Your task to perform on an android device: Go to Reddit.com Image 0: 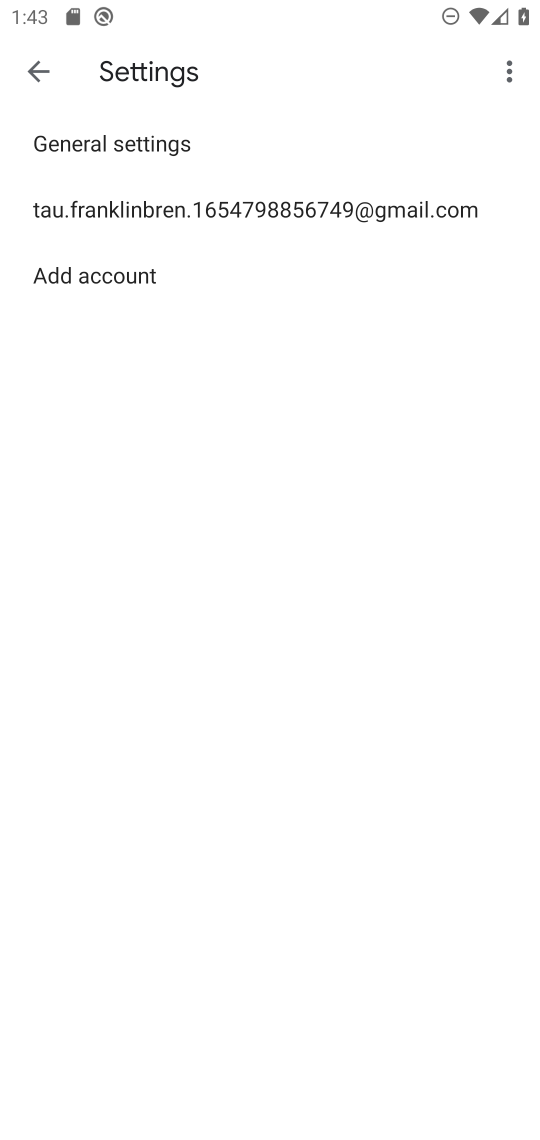
Step 0: press home button
Your task to perform on an android device: Go to Reddit.com Image 1: 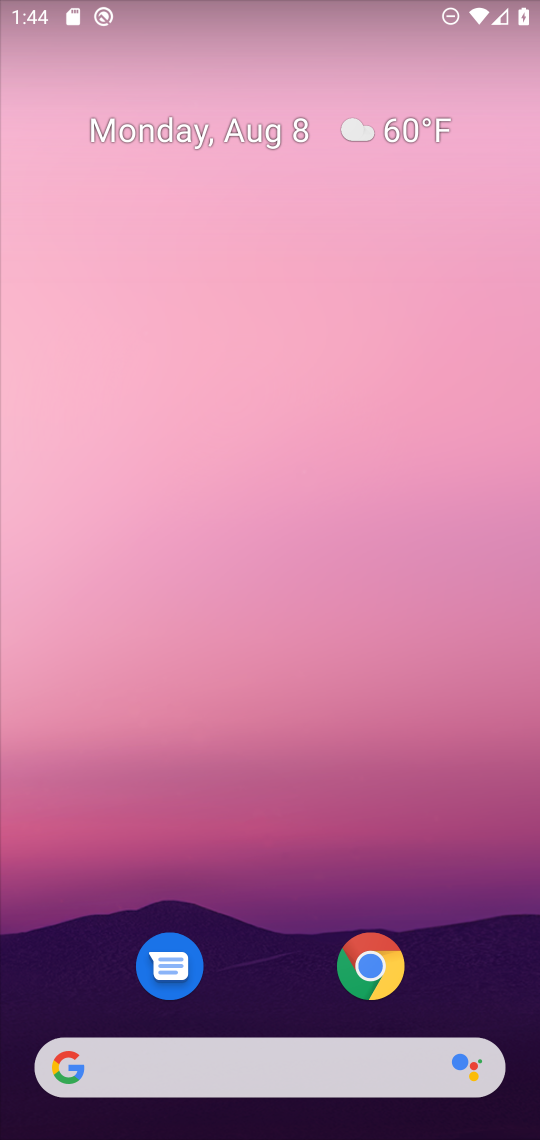
Step 1: click (383, 963)
Your task to perform on an android device: Go to Reddit.com Image 2: 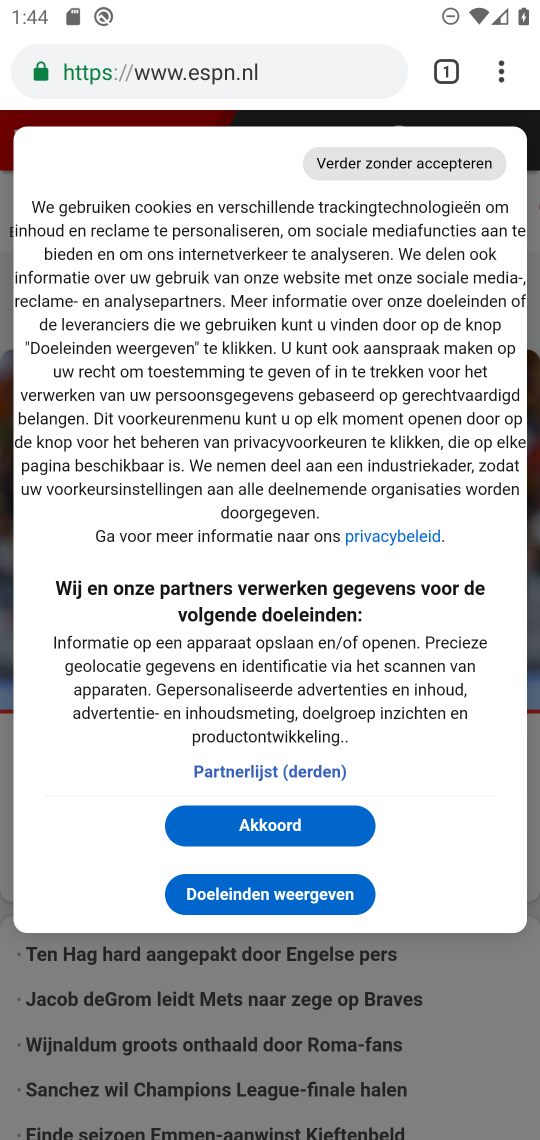
Step 2: click (266, 825)
Your task to perform on an android device: Go to Reddit.com Image 3: 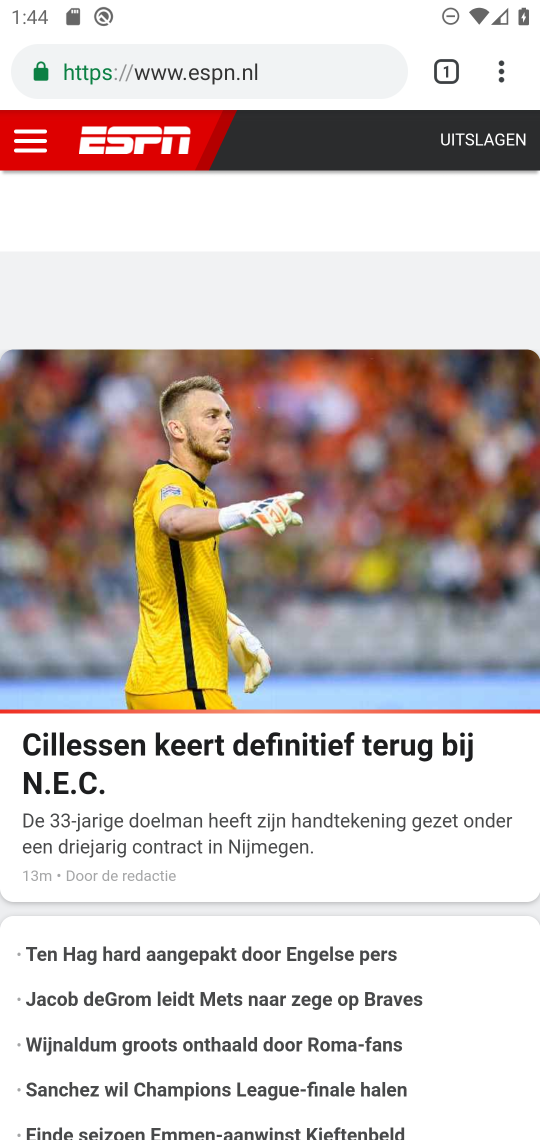
Step 3: click (350, 71)
Your task to perform on an android device: Go to Reddit.com Image 4: 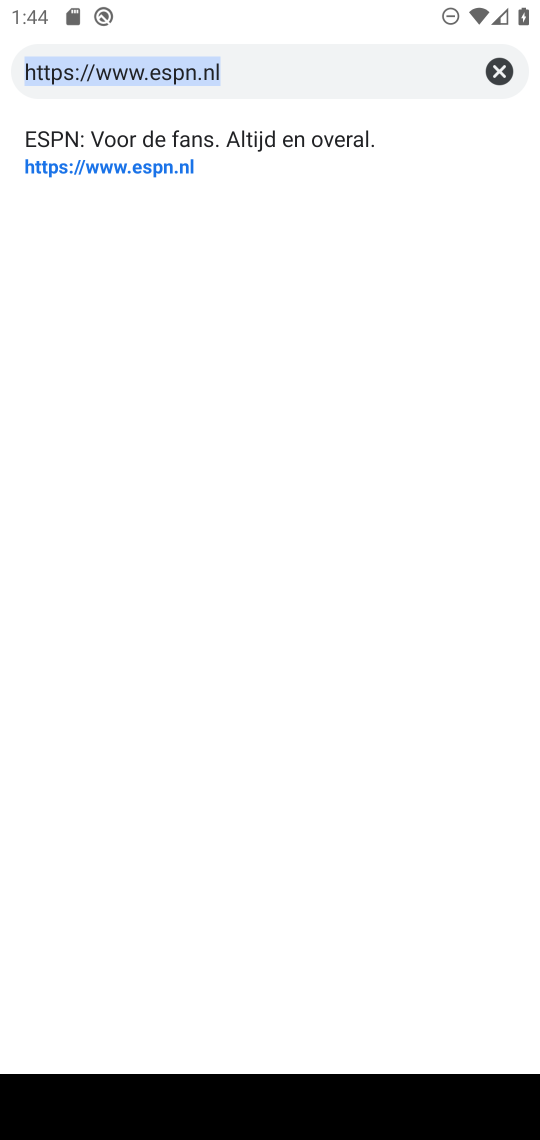
Step 4: type "reddit.com"
Your task to perform on an android device: Go to Reddit.com Image 5: 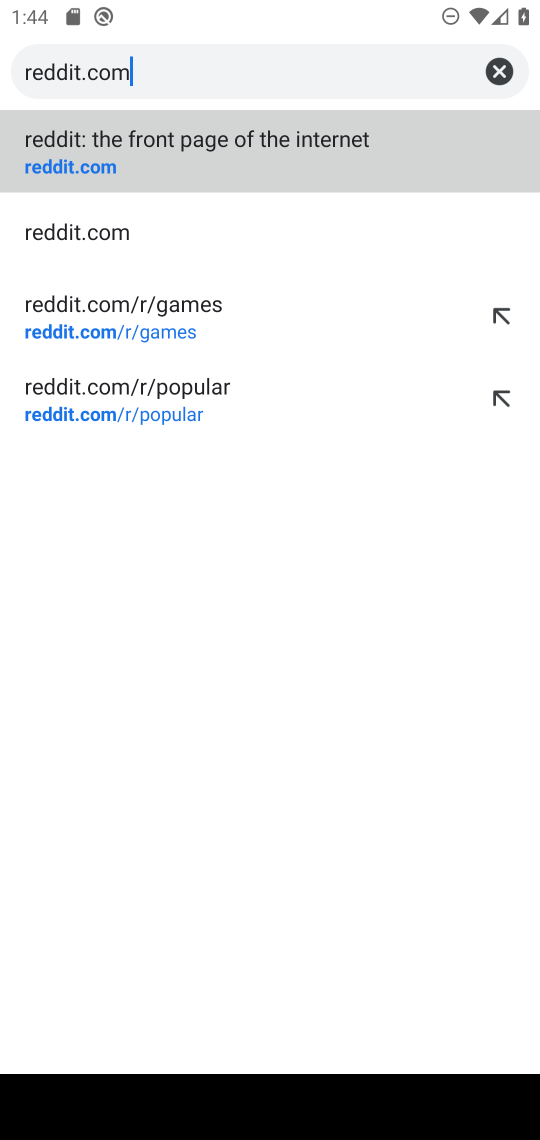
Step 5: click (280, 139)
Your task to perform on an android device: Go to Reddit.com Image 6: 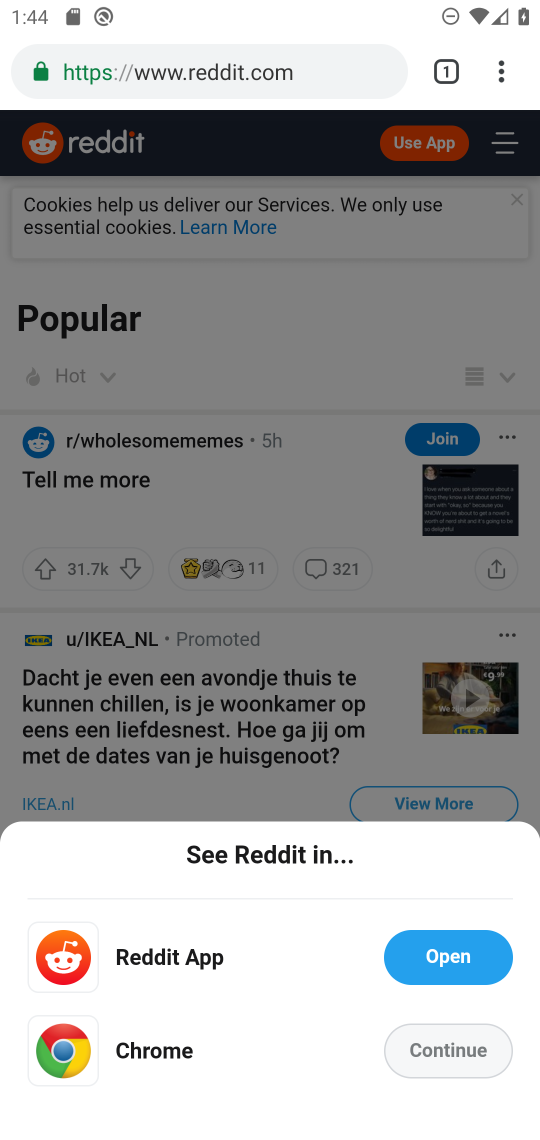
Step 6: click (441, 1038)
Your task to perform on an android device: Go to Reddit.com Image 7: 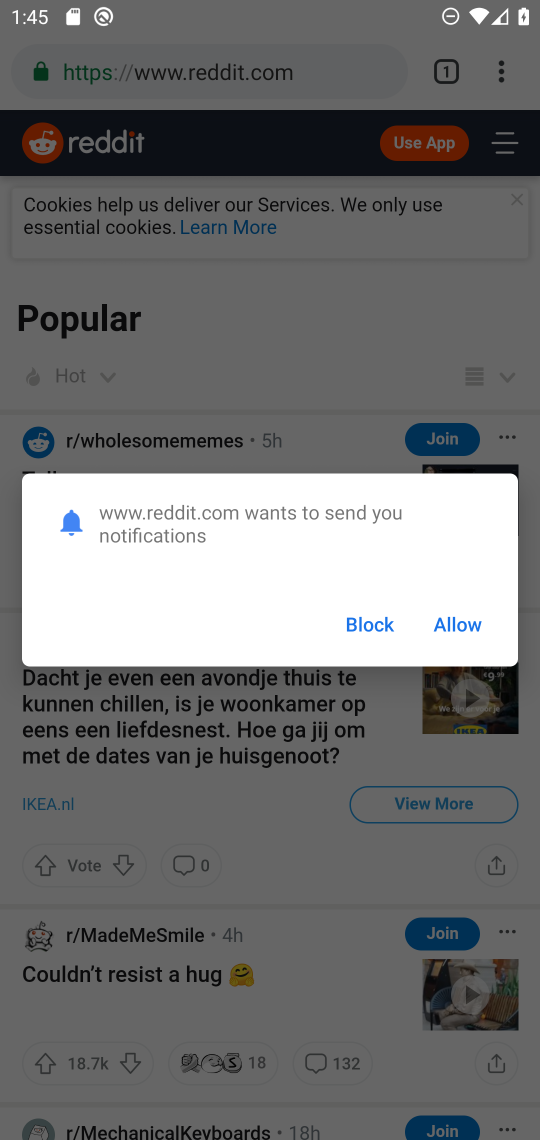
Step 7: task complete